Your task to perform on an android device: Go to Yahoo.com Image 0: 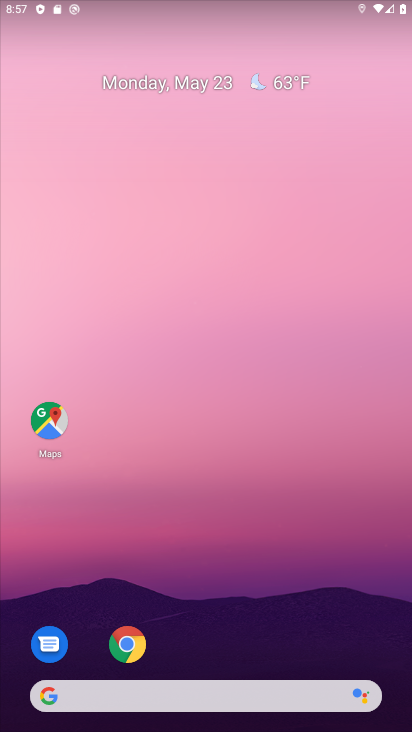
Step 0: click (123, 635)
Your task to perform on an android device: Go to Yahoo.com Image 1: 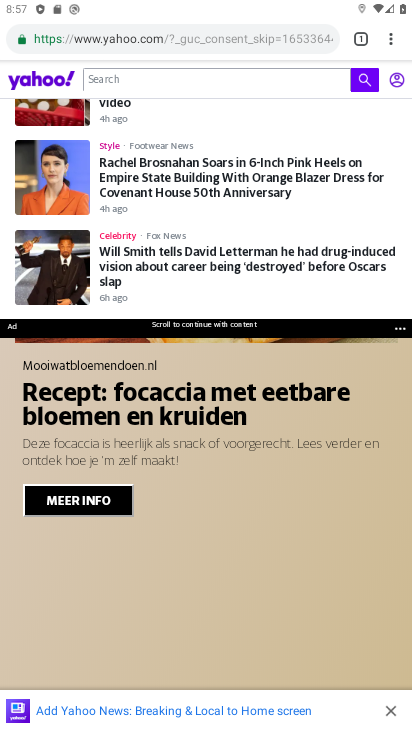
Step 1: click (358, 36)
Your task to perform on an android device: Go to Yahoo.com Image 2: 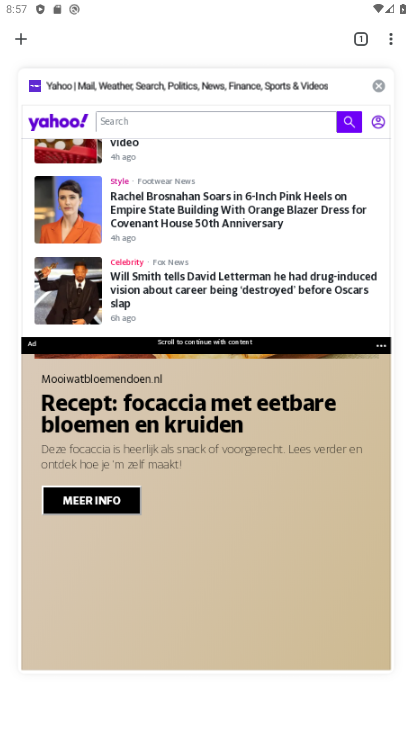
Step 2: click (180, 259)
Your task to perform on an android device: Go to Yahoo.com Image 3: 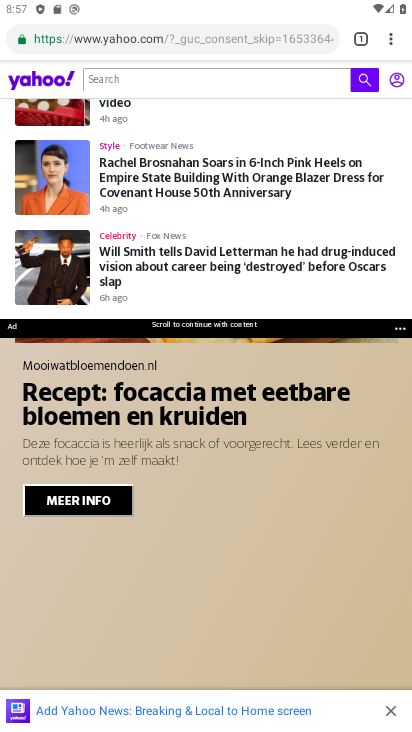
Step 3: task complete